Your task to perform on an android device: star an email in the gmail app Image 0: 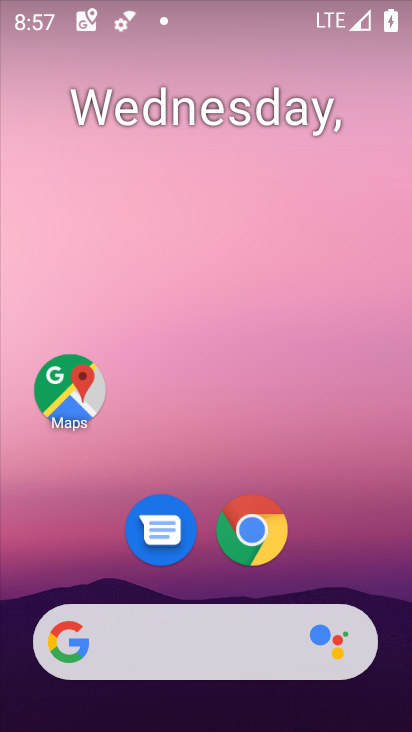
Step 0: drag from (381, 624) to (245, 65)
Your task to perform on an android device: star an email in the gmail app Image 1: 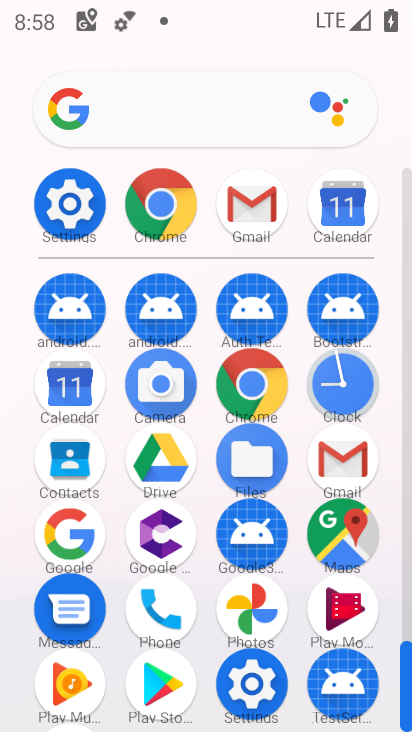
Step 1: click (339, 460)
Your task to perform on an android device: star an email in the gmail app Image 2: 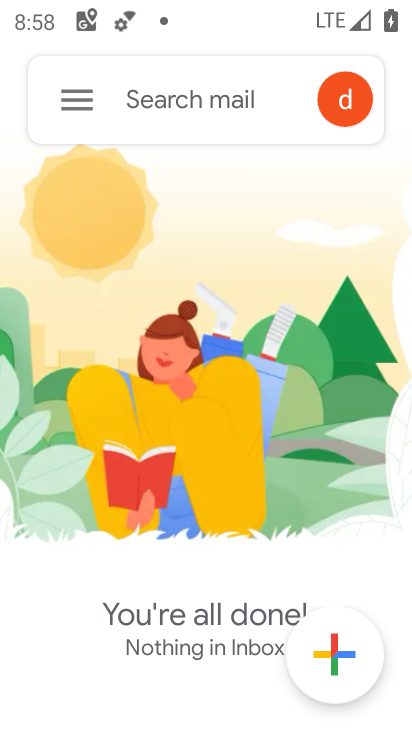
Step 2: task complete